Your task to perform on an android device: Show me productivity apps on the Play Store Image 0: 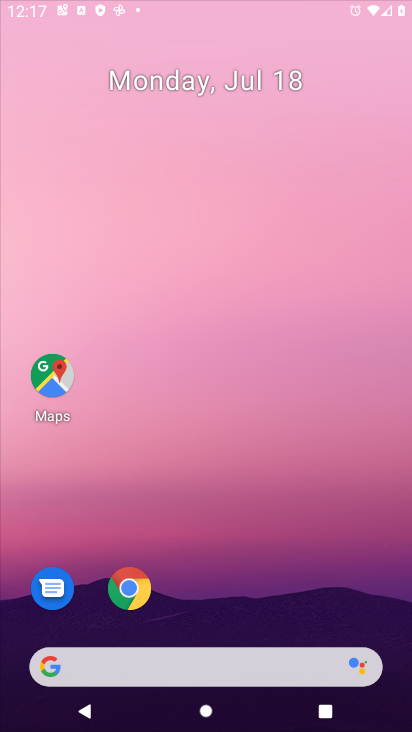
Step 0: click (275, 267)
Your task to perform on an android device: Show me productivity apps on the Play Store Image 1: 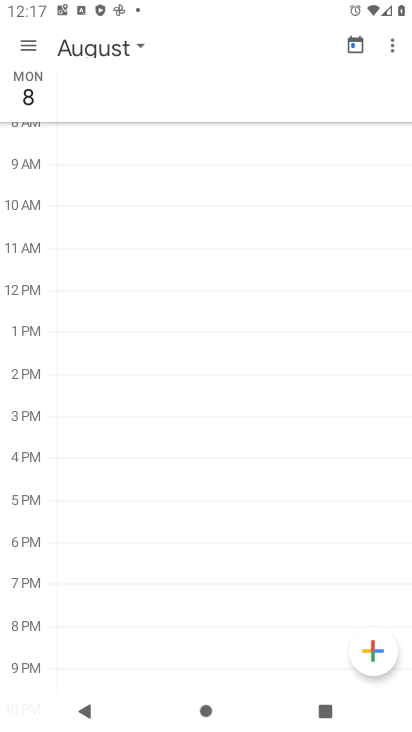
Step 1: press home button
Your task to perform on an android device: Show me productivity apps on the Play Store Image 2: 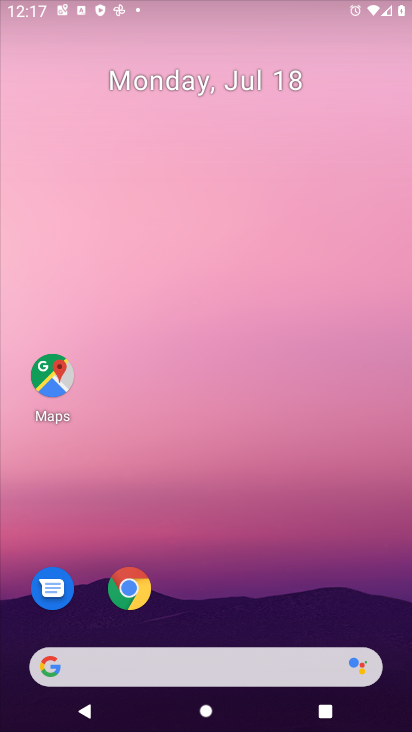
Step 2: drag from (306, 602) to (299, 264)
Your task to perform on an android device: Show me productivity apps on the Play Store Image 3: 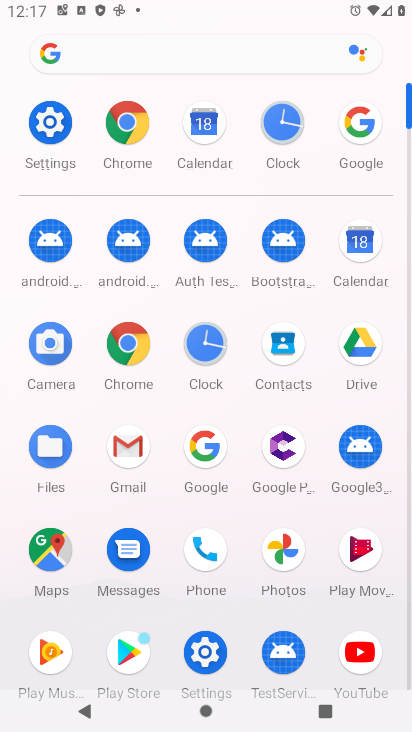
Step 3: click (130, 650)
Your task to perform on an android device: Show me productivity apps on the Play Store Image 4: 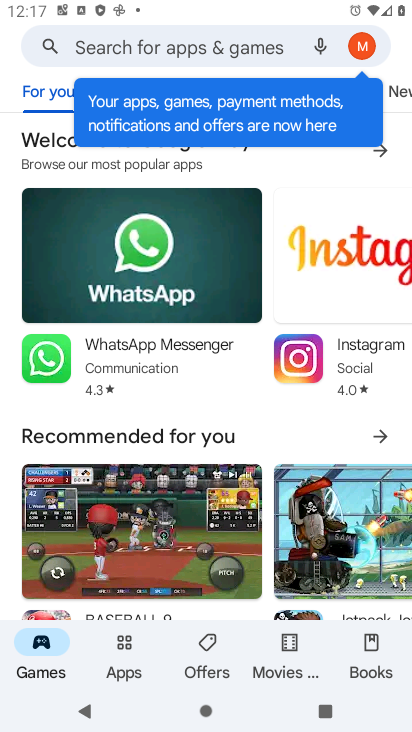
Step 4: click (200, 70)
Your task to perform on an android device: Show me productivity apps on the Play Store Image 5: 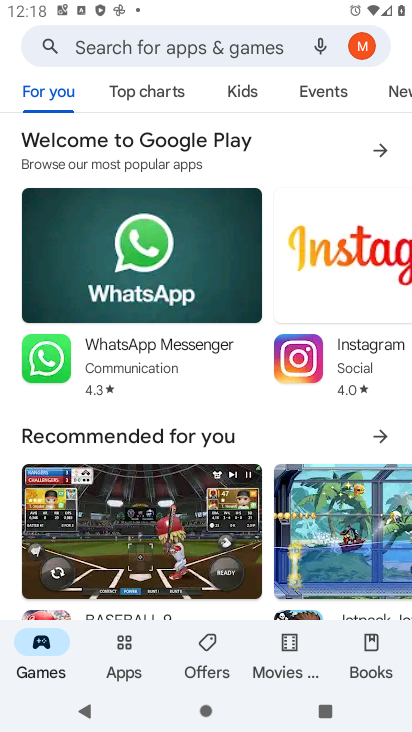
Step 5: click (188, 56)
Your task to perform on an android device: Show me productivity apps on the Play Store Image 6: 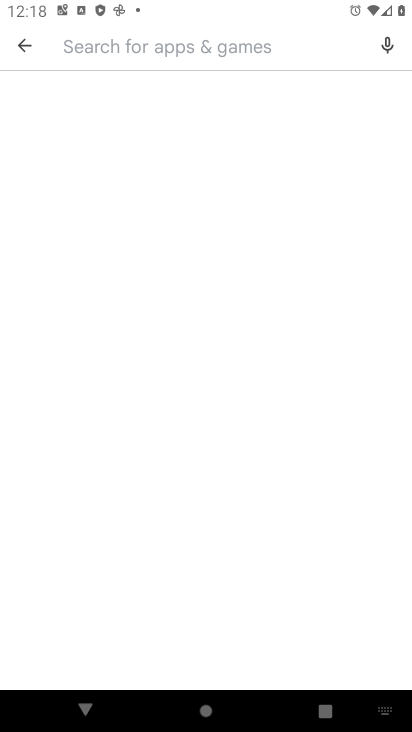
Step 6: type "productivity aaps"
Your task to perform on an android device: Show me productivity apps on the Play Store Image 7: 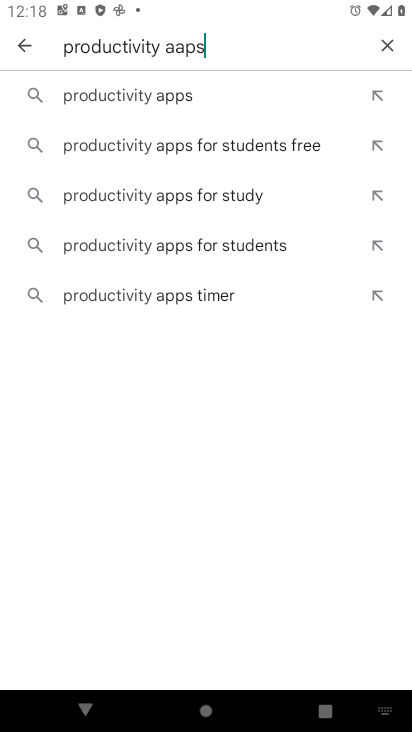
Step 7: click (141, 106)
Your task to perform on an android device: Show me productivity apps on the Play Store Image 8: 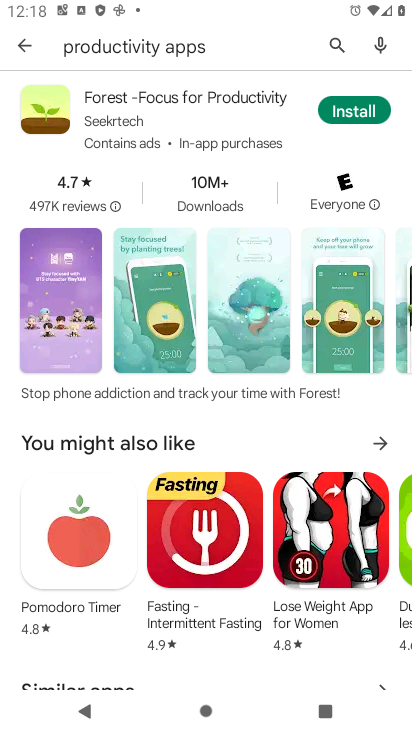
Step 8: task complete